Your task to perform on an android device: check out phone information Image 0: 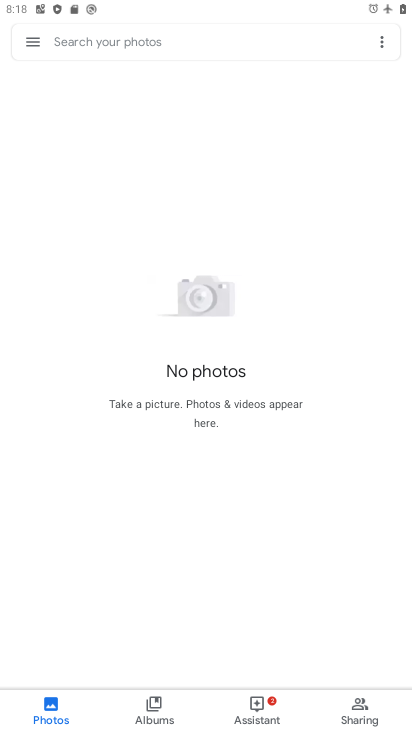
Step 0: press home button
Your task to perform on an android device: check out phone information Image 1: 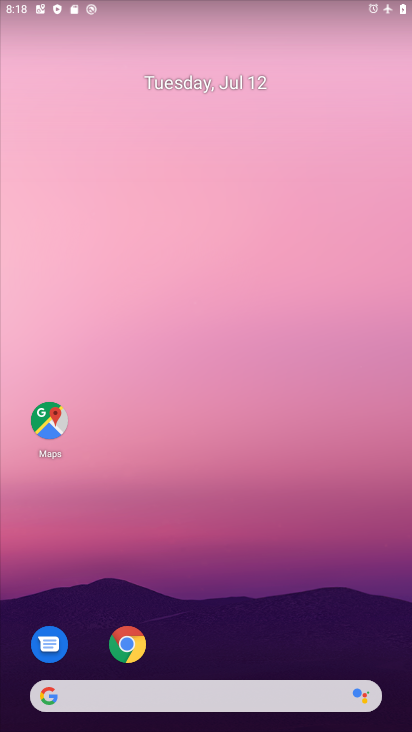
Step 1: drag from (126, 626) to (192, 225)
Your task to perform on an android device: check out phone information Image 2: 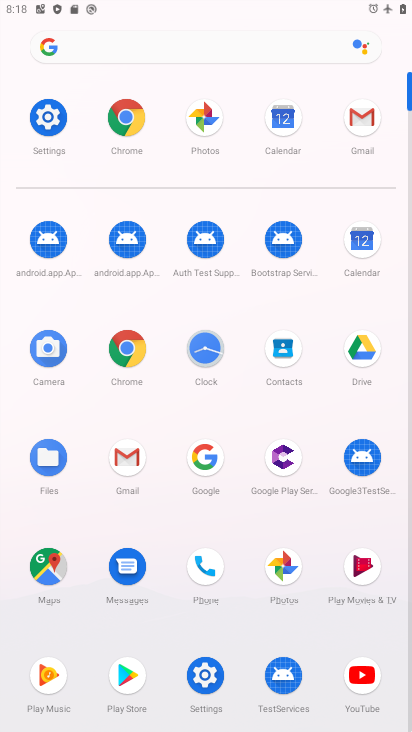
Step 2: click (199, 566)
Your task to perform on an android device: check out phone information Image 3: 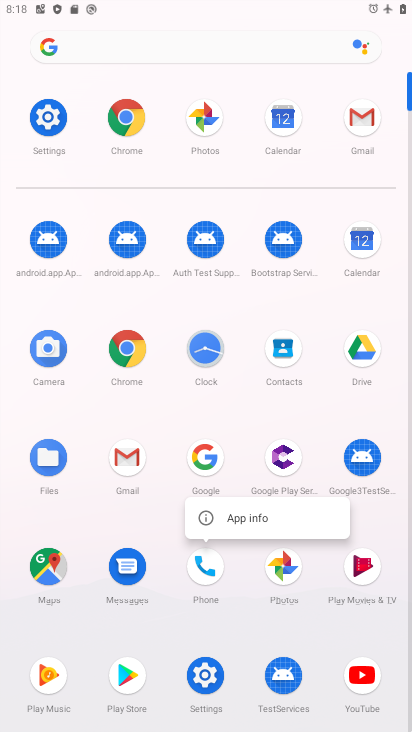
Step 3: click (228, 514)
Your task to perform on an android device: check out phone information Image 4: 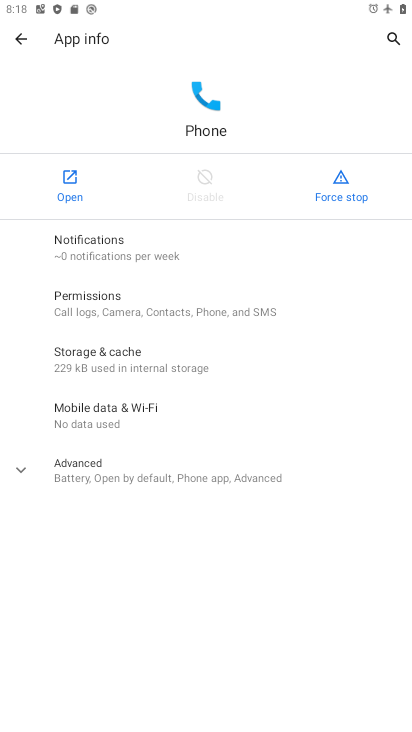
Step 4: click (152, 465)
Your task to perform on an android device: check out phone information Image 5: 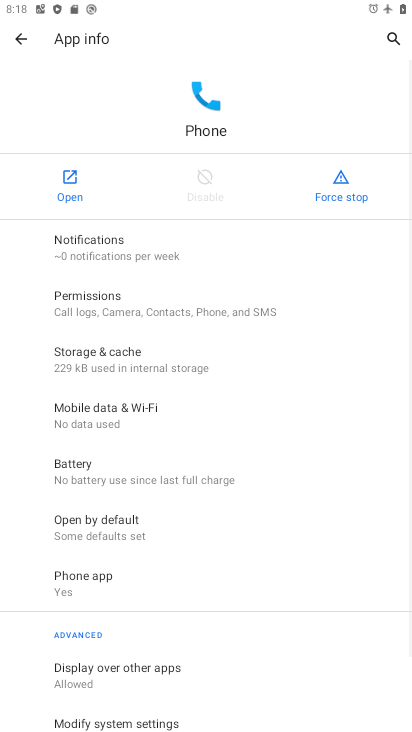
Step 5: task complete